Your task to perform on an android device: toggle data saver in the chrome app Image 0: 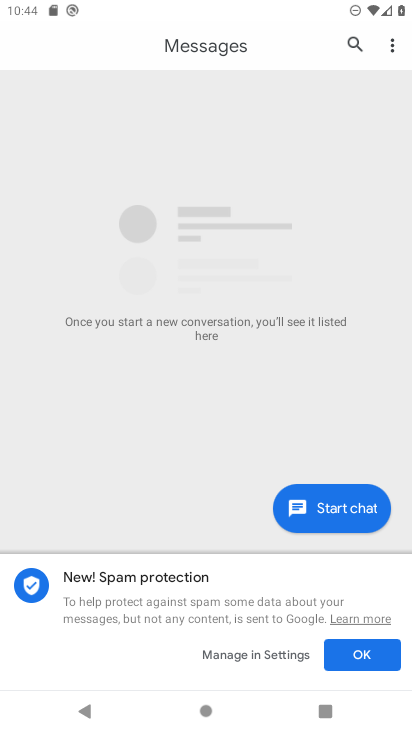
Step 0: press home button
Your task to perform on an android device: toggle data saver in the chrome app Image 1: 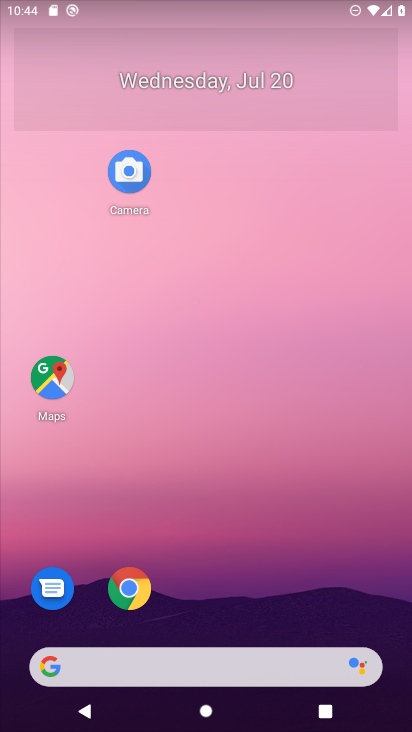
Step 1: click (119, 588)
Your task to perform on an android device: toggle data saver in the chrome app Image 2: 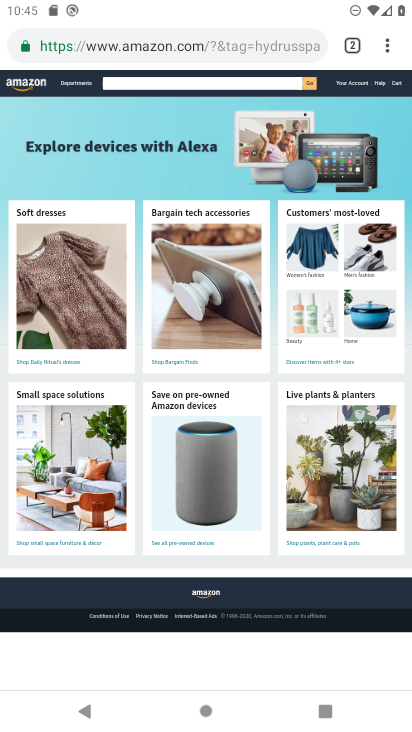
Step 2: drag from (387, 43) to (239, 545)
Your task to perform on an android device: toggle data saver in the chrome app Image 3: 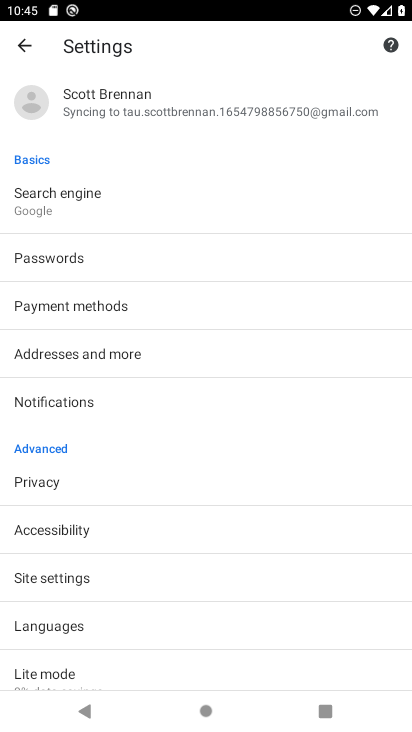
Step 3: click (83, 675)
Your task to perform on an android device: toggle data saver in the chrome app Image 4: 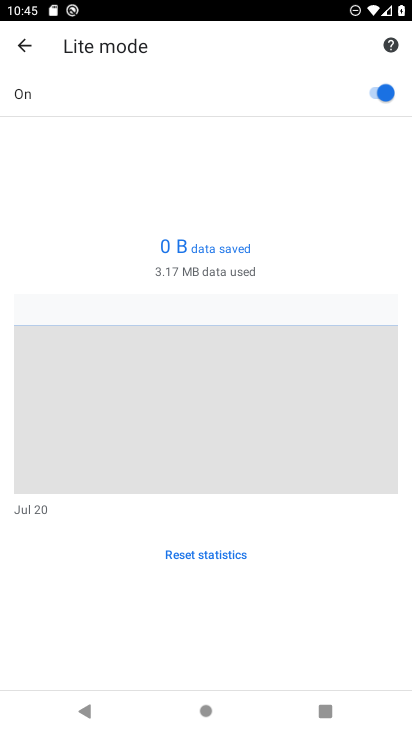
Step 4: click (378, 96)
Your task to perform on an android device: toggle data saver in the chrome app Image 5: 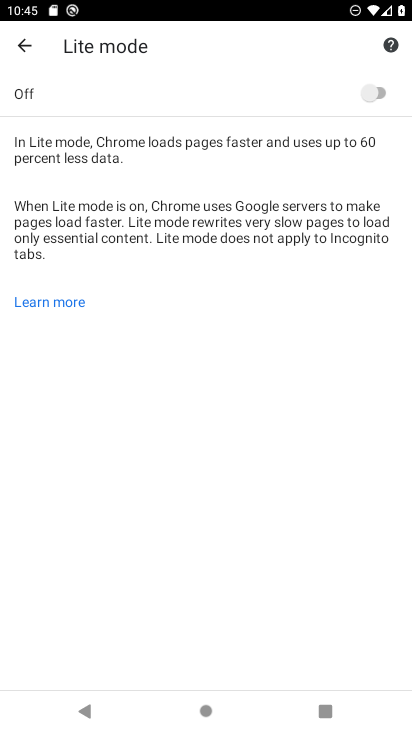
Step 5: task complete